Your task to perform on an android device: Install the Calendar app Image 0: 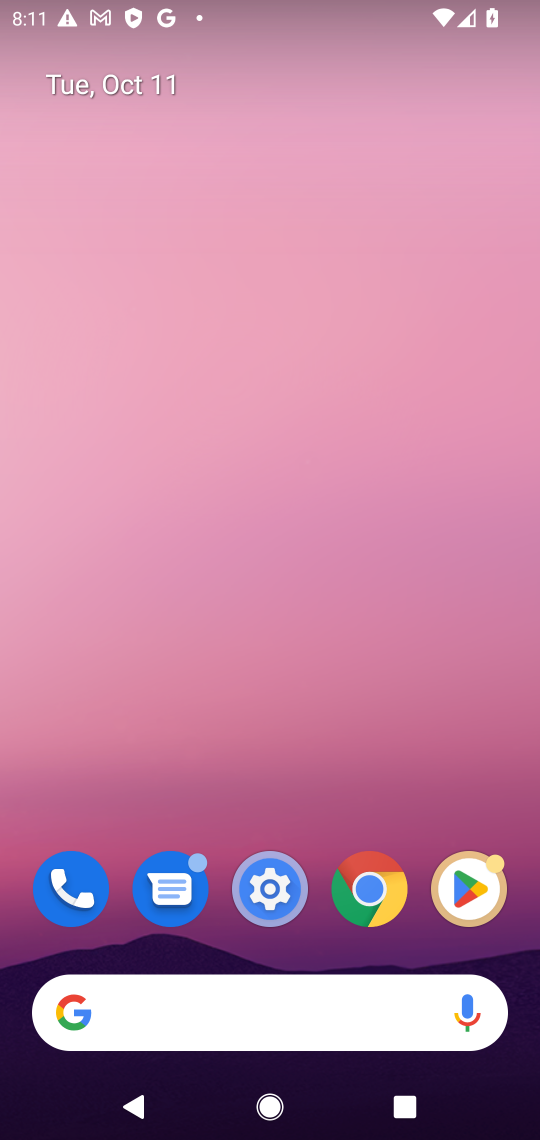
Step 0: drag from (222, 951) to (289, 104)
Your task to perform on an android device: Install the Calendar app Image 1: 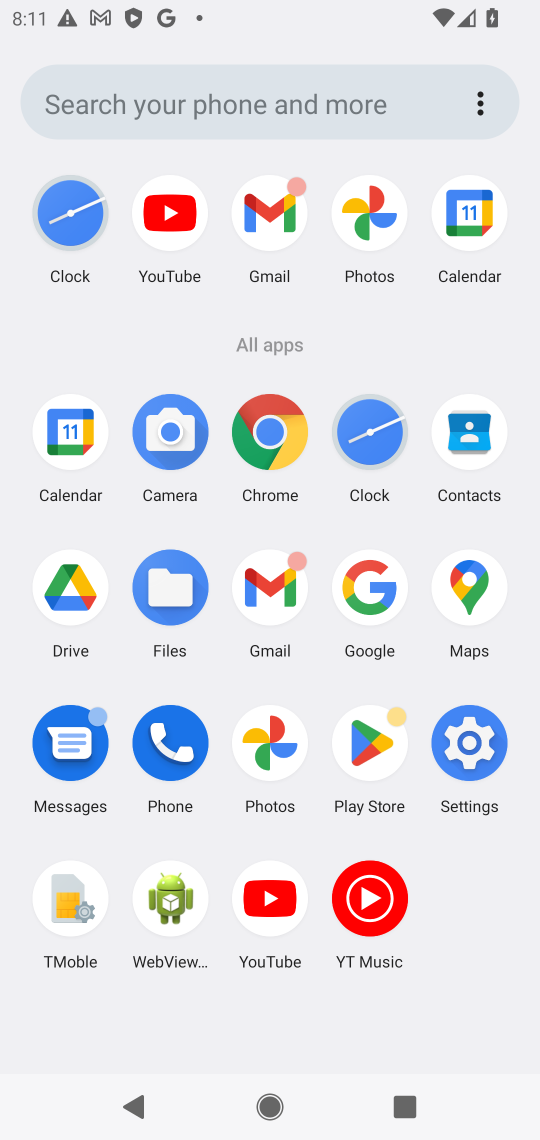
Step 1: click (64, 447)
Your task to perform on an android device: Install the Calendar app Image 2: 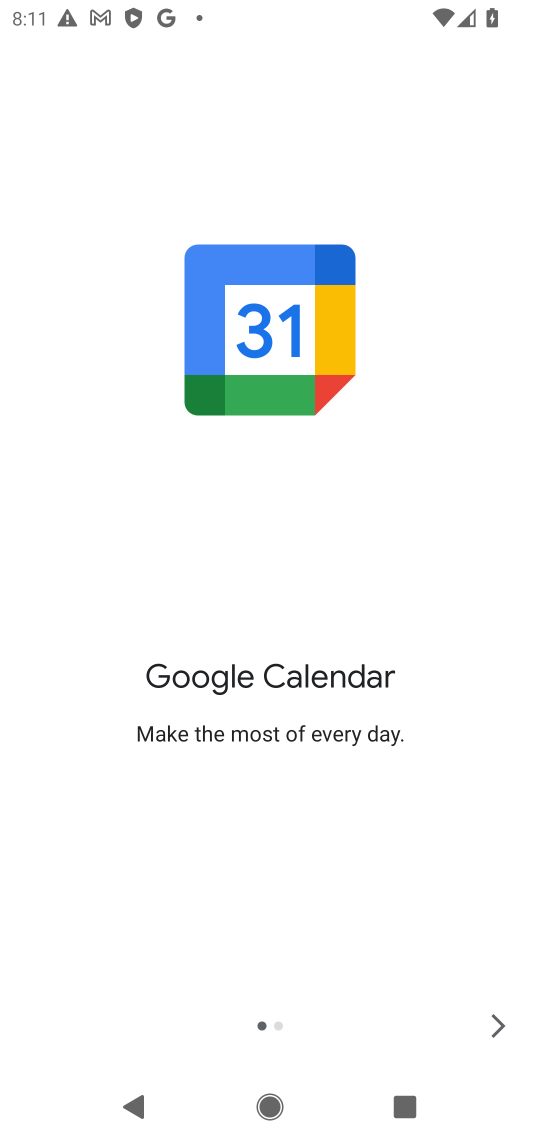
Step 2: task complete